Your task to perform on an android device: clear all cookies in the chrome app Image 0: 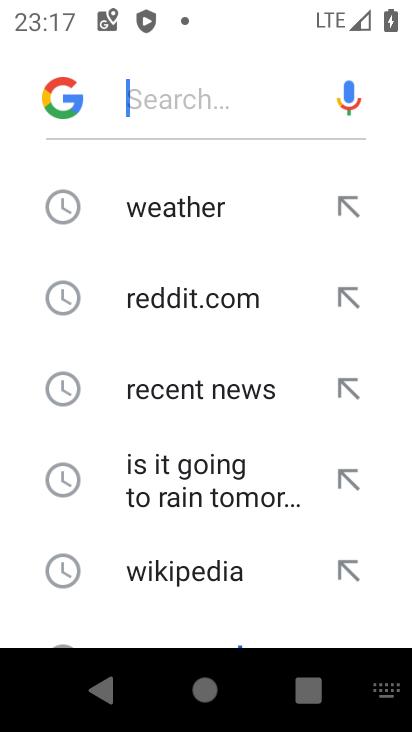
Step 0: press home button
Your task to perform on an android device: clear all cookies in the chrome app Image 1: 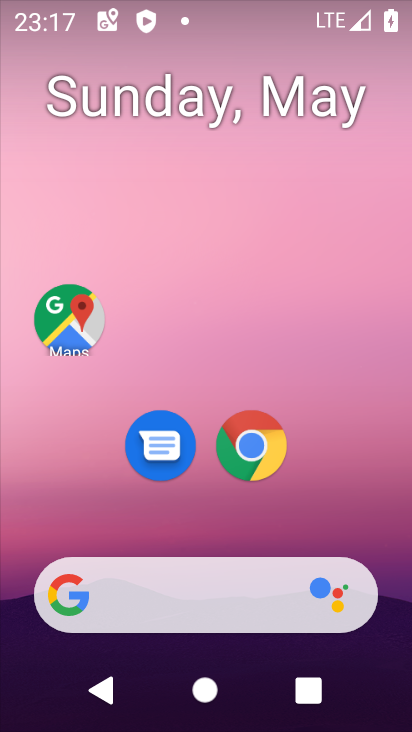
Step 1: click (255, 470)
Your task to perform on an android device: clear all cookies in the chrome app Image 2: 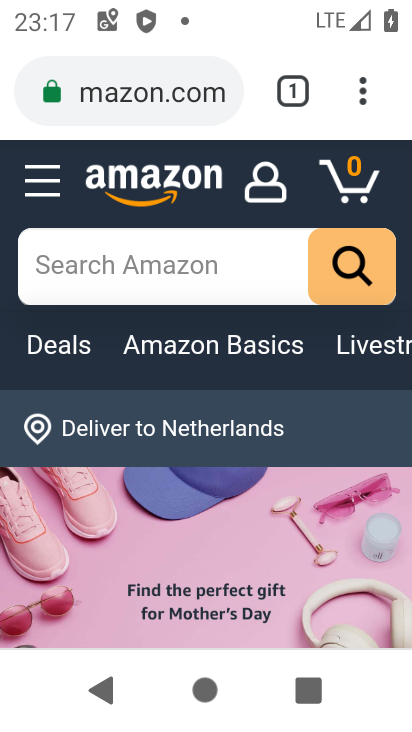
Step 2: click (365, 72)
Your task to perform on an android device: clear all cookies in the chrome app Image 3: 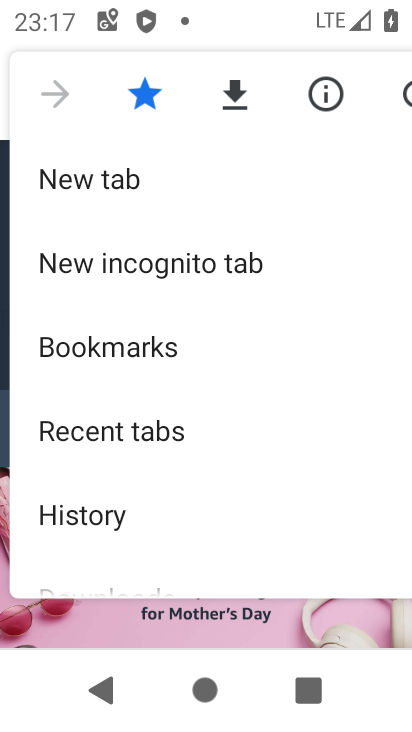
Step 3: drag from (187, 446) to (297, 145)
Your task to perform on an android device: clear all cookies in the chrome app Image 4: 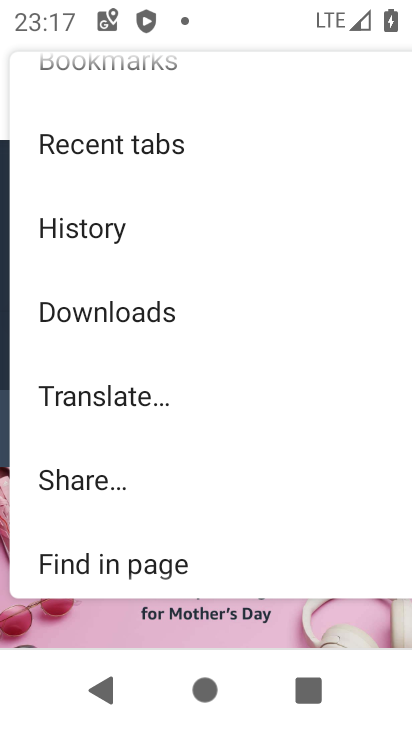
Step 4: click (185, 217)
Your task to perform on an android device: clear all cookies in the chrome app Image 5: 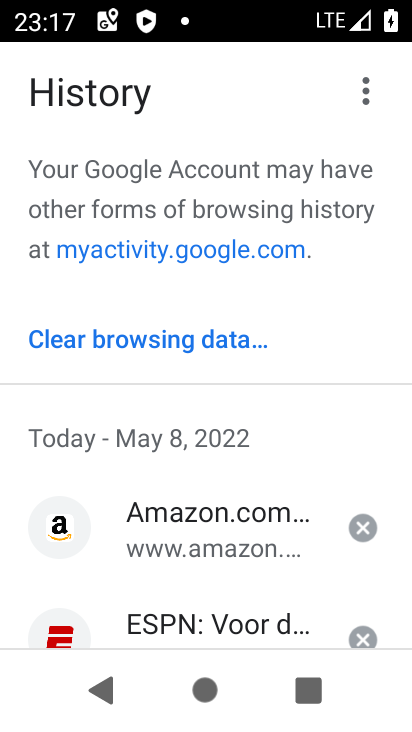
Step 5: click (126, 361)
Your task to perform on an android device: clear all cookies in the chrome app Image 6: 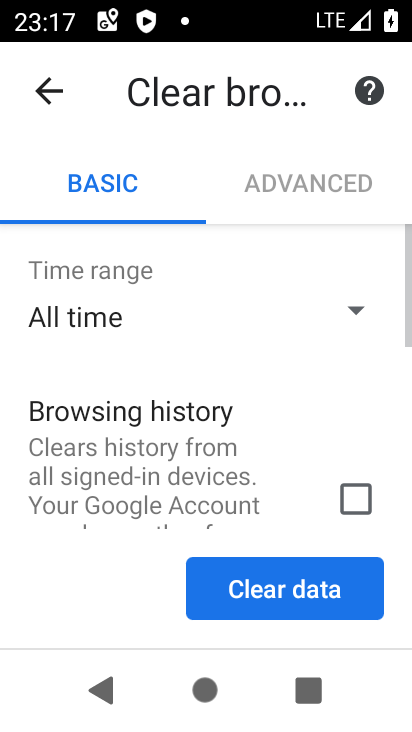
Step 6: drag from (135, 444) to (244, 138)
Your task to perform on an android device: clear all cookies in the chrome app Image 7: 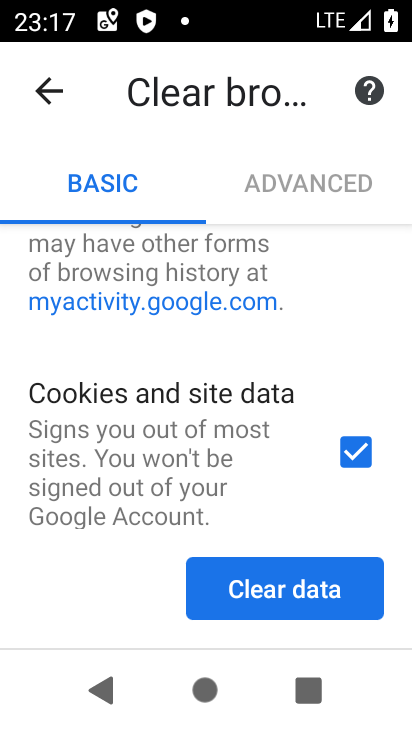
Step 7: click (261, 590)
Your task to perform on an android device: clear all cookies in the chrome app Image 8: 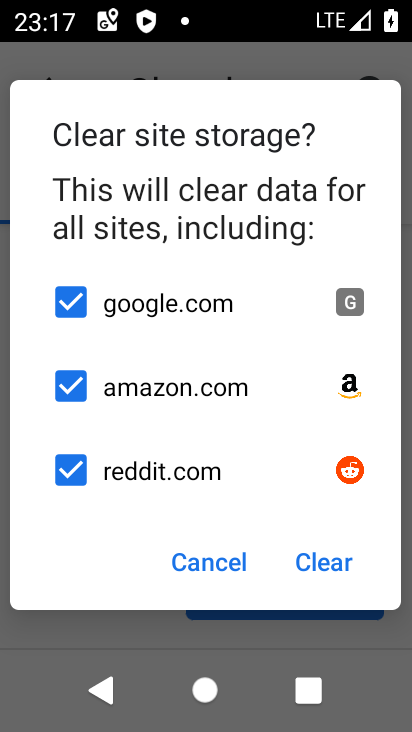
Step 8: click (333, 565)
Your task to perform on an android device: clear all cookies in the chrome app Image 9: 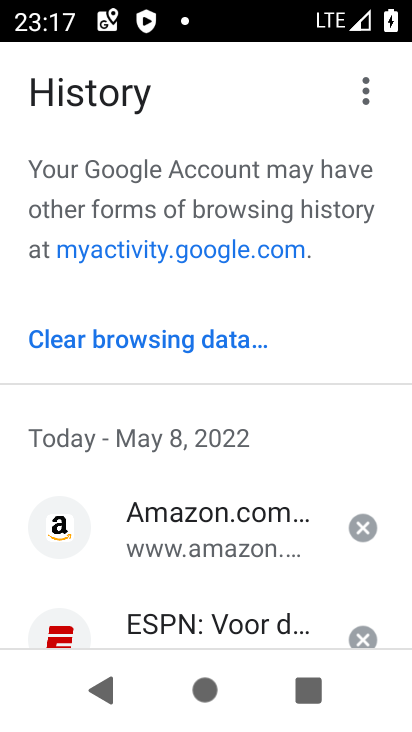
Step 9: task complete